Your task to perform on an android device: Go to network settings Image 0: 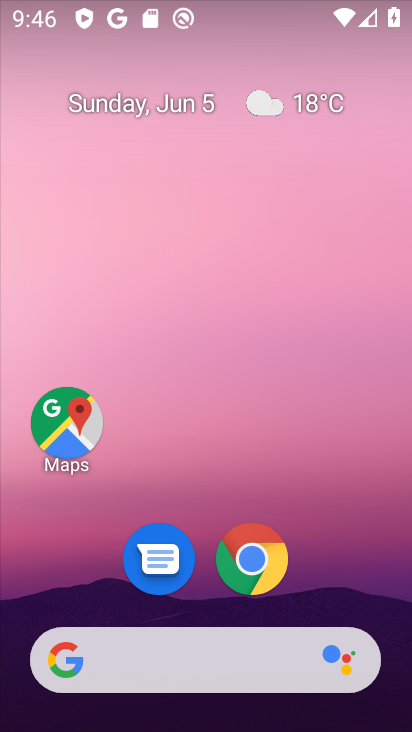
Step 0: drag from (401, 667) to (359, 74)
Your task to perform on an android device: Go to network settings Image 1: 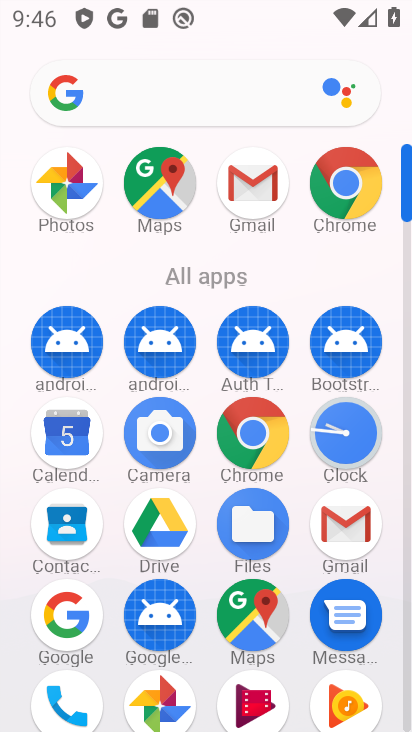
Step 1: drag from (212, 693) to (201, 264)
Your task to perform on an android device: Go to network settings Image 2: 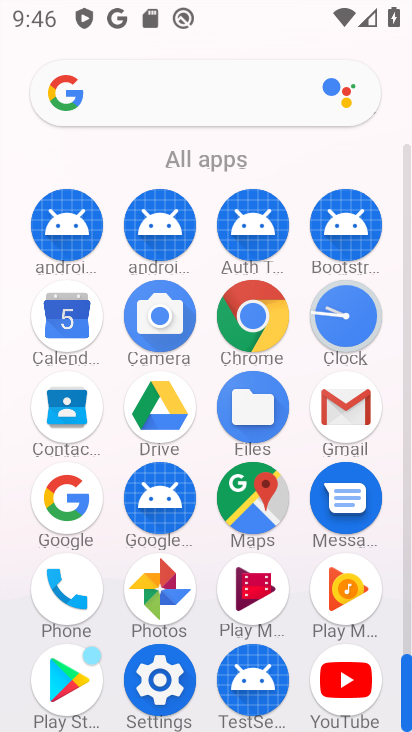
Step 2: click (170, 663)
Your task to perform on an android device: Go to network settings Image 3: 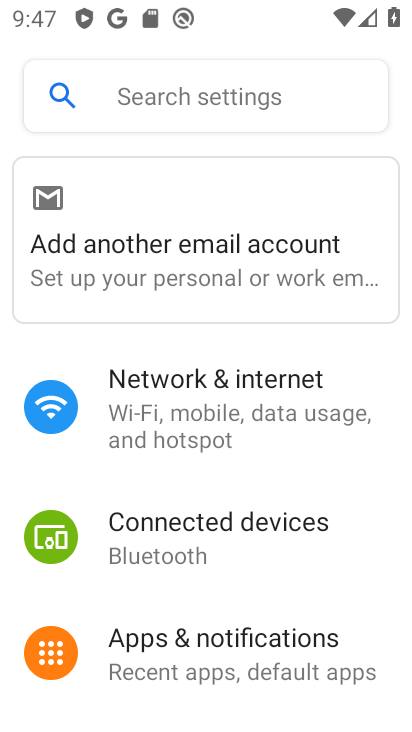
Step 3: click (201, 412)
Your task to perform on an android device: Go to network settings Image 4: 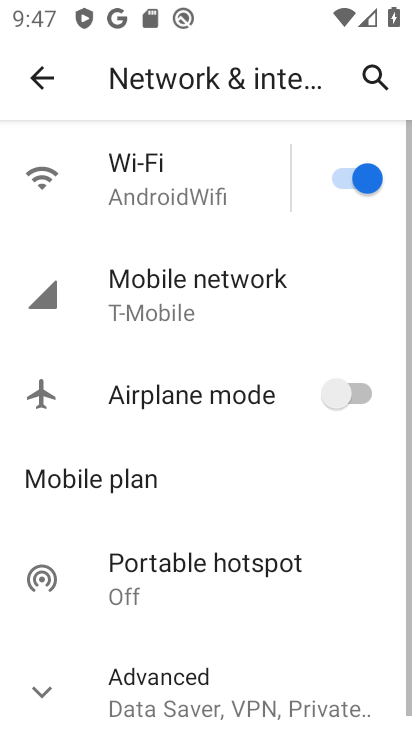
Step 4: click (143, 293)
Your task to perform on an android device: Go to network settings Image 5: 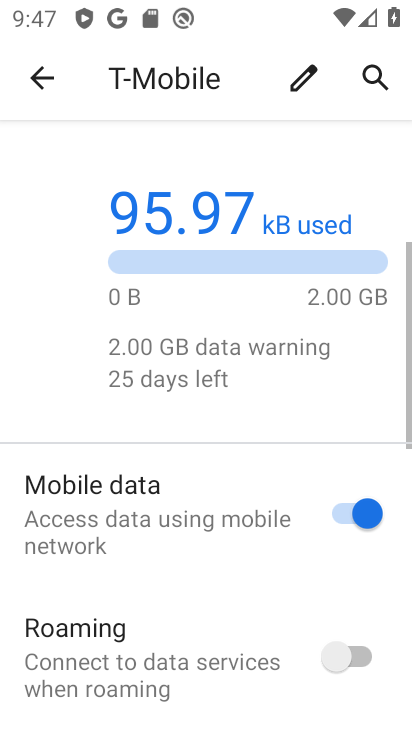
Step 5: drag from (273, 639) to (229, 207)
Your task to perform on an android device: Go to network settings Image 6: 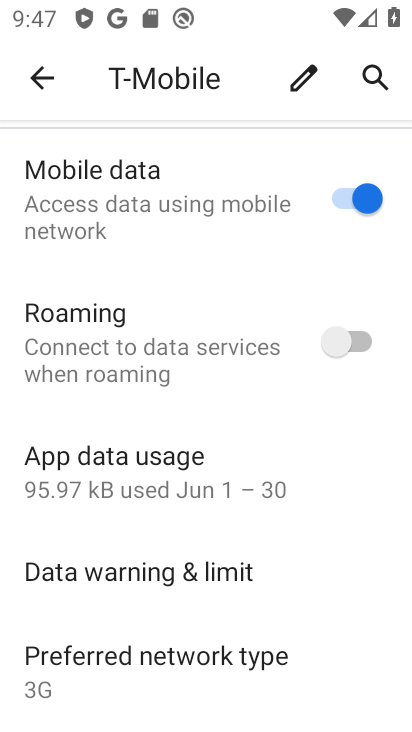
Step 6: drag from (233, 699) to (173, 270)
Your task to perform on an android device: Go to network settings Image 7: 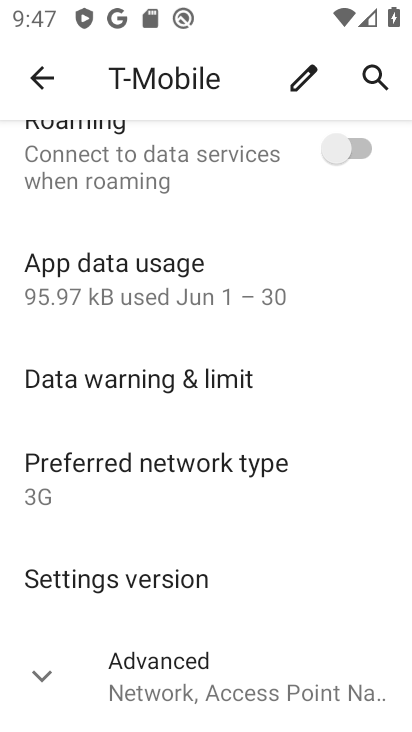
Step 7: click (140, 656)
Your task to perform on an android device: Go to network settings Image 8: 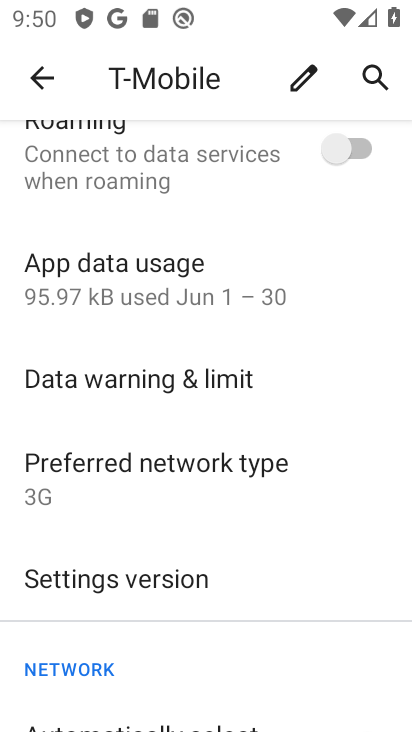
Step 8: task complete